Your task to perform on an android device: Go to wifi settings Image 0: 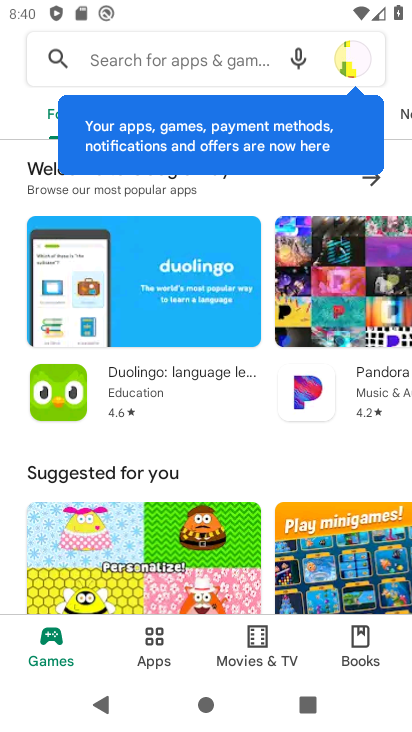
Step 0: press home button
Your task to perform on an android device: Go to wifi settings Image 1: 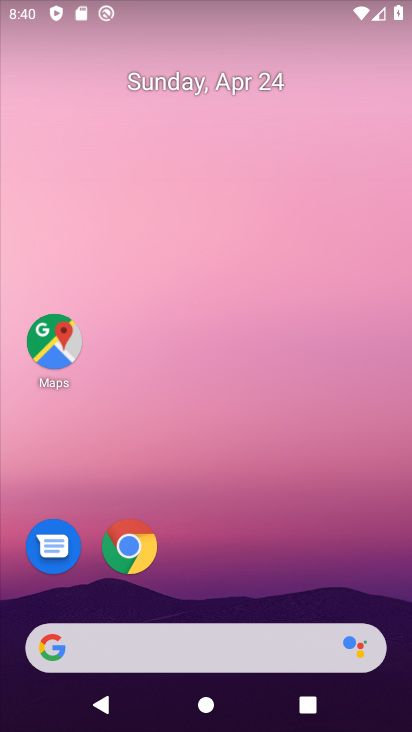
Step 1: drag from (255, 599) to (272, 114)
Your task to perform on an android device: Go to wifi settings Image 2: 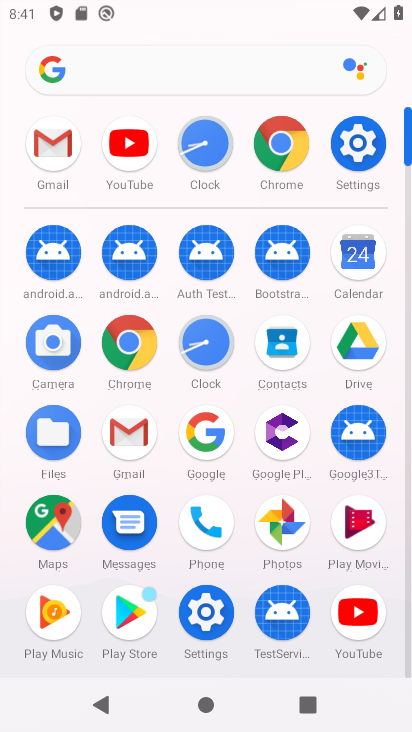
Step 2: click (367, 142)
Your task to perform on an android device: Go to wifi settings Image 3: 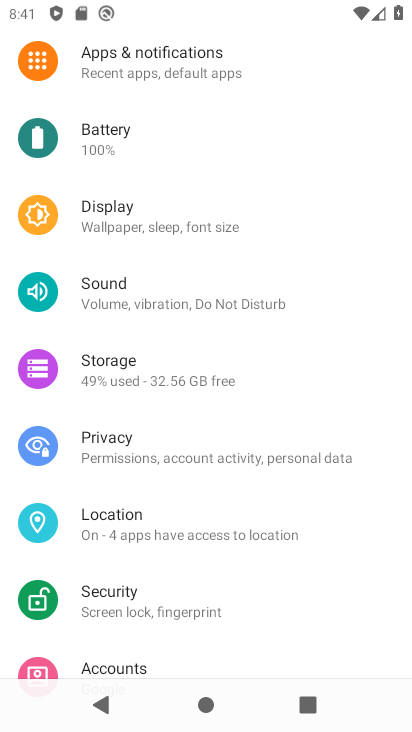
Step 3: drag from (232, 210) to (154, 603)
Your task to perform on an android device: Go to wifi settings Image 4: 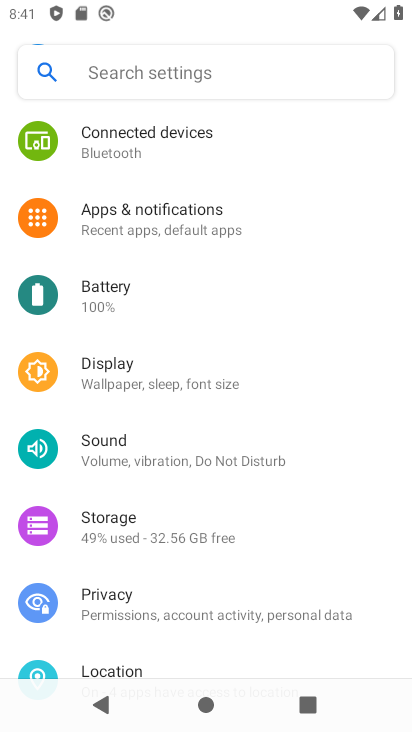
Step 4: drag from (255, 123) to (215, 611)
Your task to perform on an android device: Go to wifi settings Image 5: 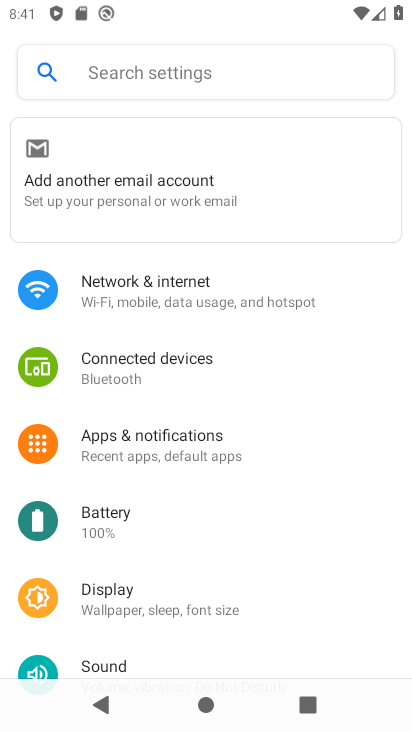
Step 5: click (227, 277)
Your task to perform on an android device: Go to wifi settings Image 6: 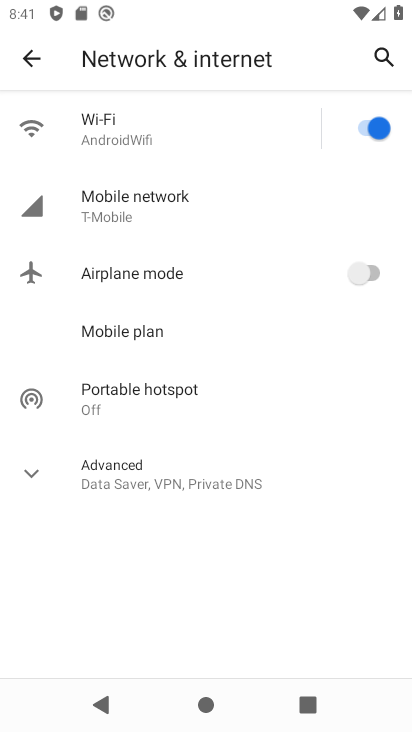
Step 6: click (181, 142)
Your task to perform on an android device: Go to wifi settings Image 7: 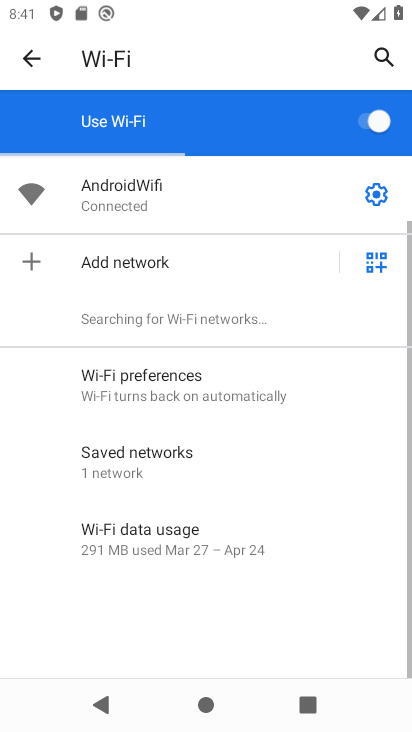
Step 7: click (383, 196)
Your task to perform on an android device: Go to wifi settings Image 8: 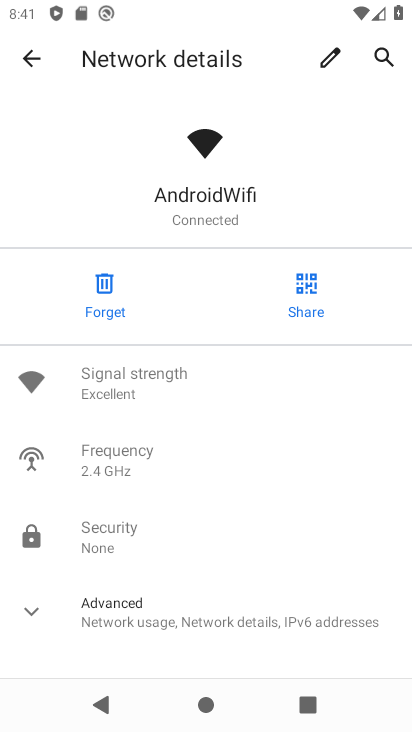
Step 8: task complete